Your task to perform on an android device: turn on airplane mode Image 0: 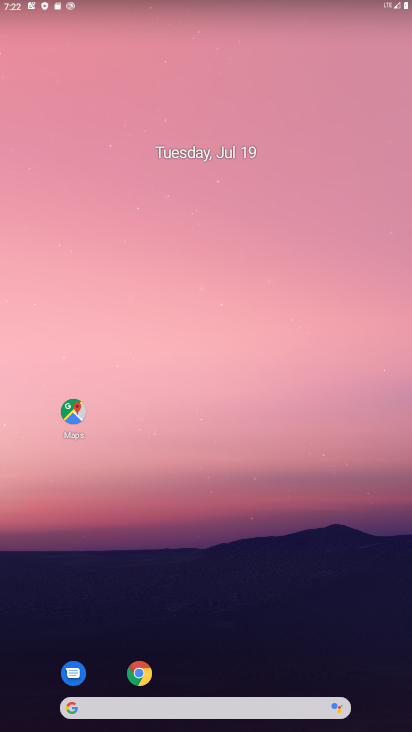
Step 0: drag from (320, 662) to (241, 111)
Your task to perform on an android device: turn on airplane mode Image 1: 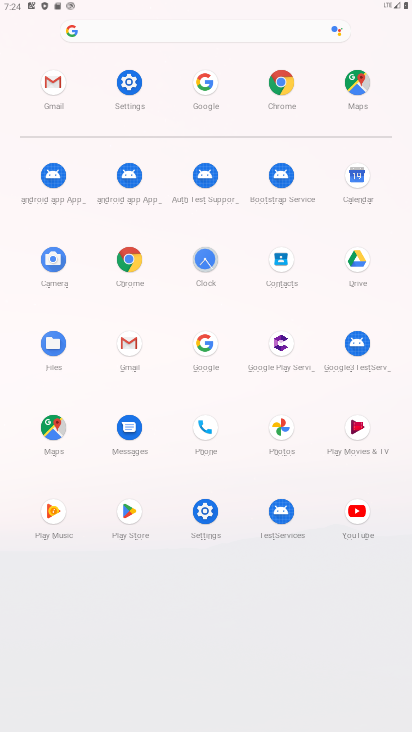
Step 1: drag from (258, 4) to (364, 523)
Your task to perform on an android device: turn on airplane mode Image 2: 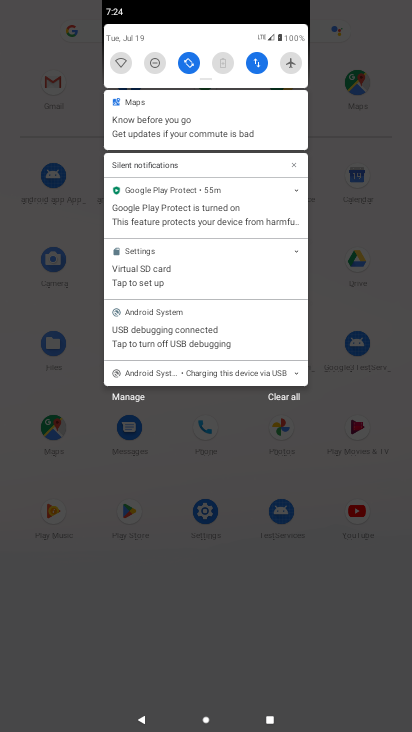
Step 2: click (285, 63)
Your task to perform on an android device: turn on airplane mode Image 3: 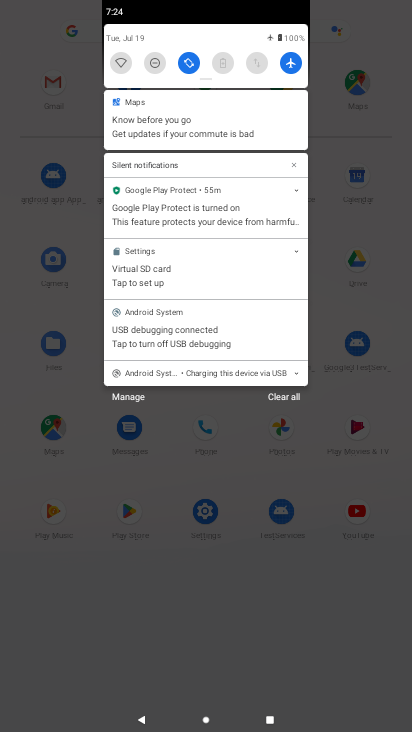
Step 3: task complete